Your task to perform on an android device: snooze an email in the gmail app Image 0: 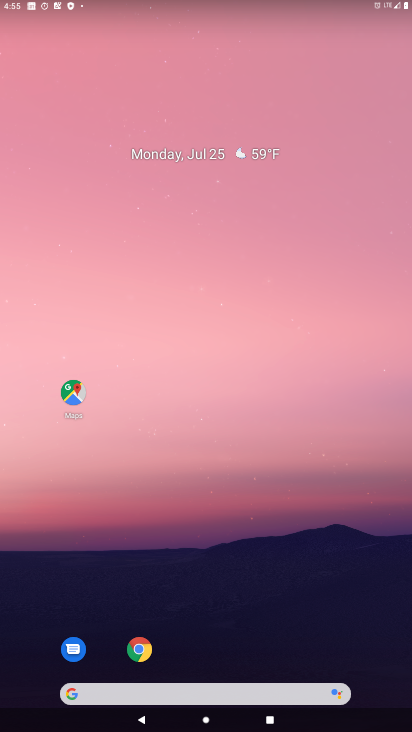
Step 0: drag from (292, 615) to (233, 72)
Your task to perform on an android device: snooze an email in the gmail app Image 1: 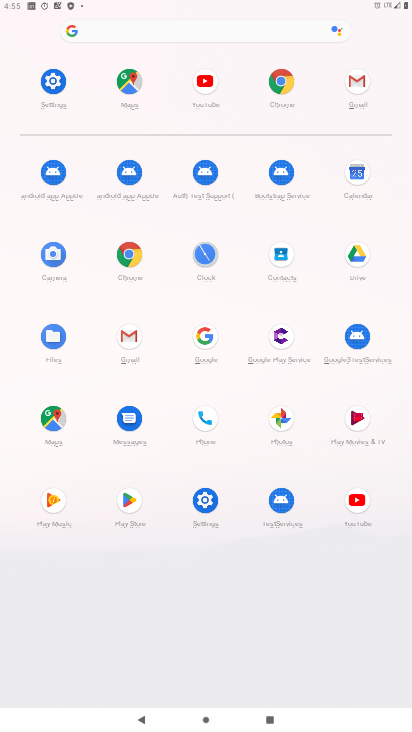
Step 1: click (366, 89)
Your task to perform on an android device: snooze an email in the gmail app Image 2: 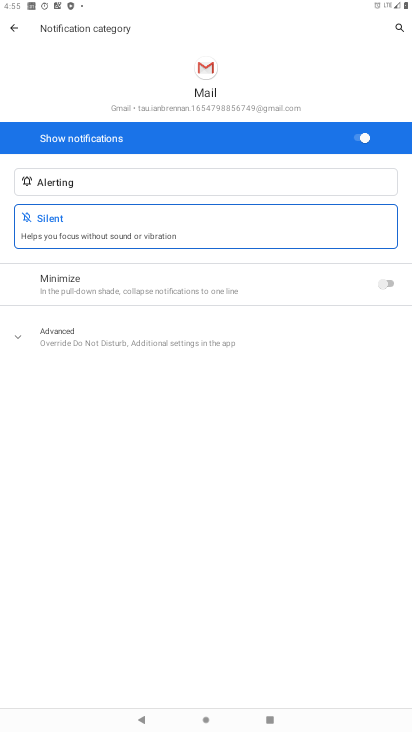
Step 2: click (17, 31)
Your task to perform on an android device: snooze an email in the gmail app Image 3: 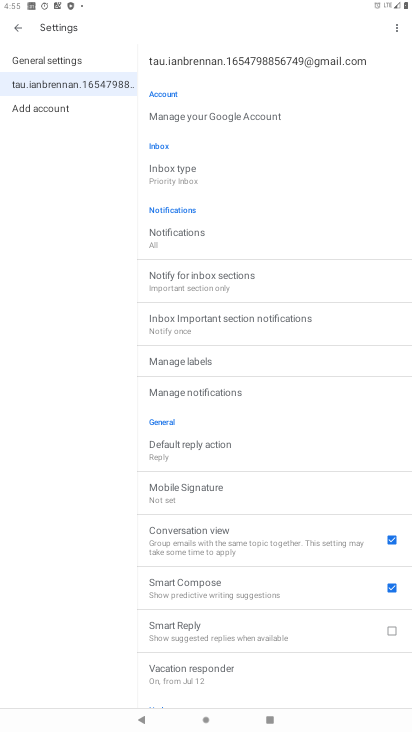
Step 3: click (17, 30)
Your task to perform on an android device: snooze an email in the gmail app Image 4: 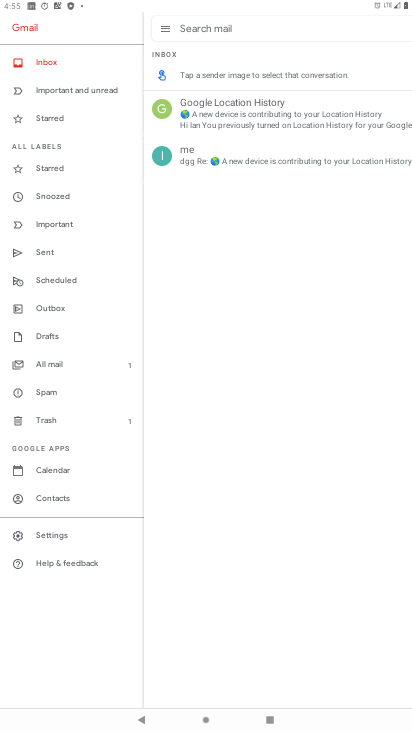
Step 4: click (279, 101)
Your task to perform on an android device: snooze an email in the gmail app Image 5: 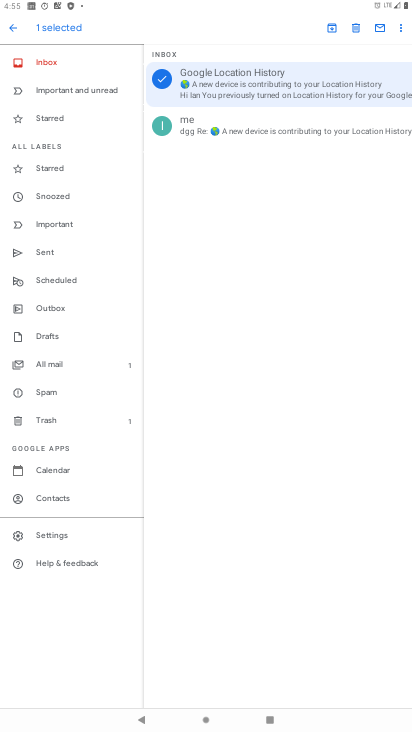
Step 5: click (398, 20)
Your task to perform on an android device: snooze an email in the gmail app Image 6: 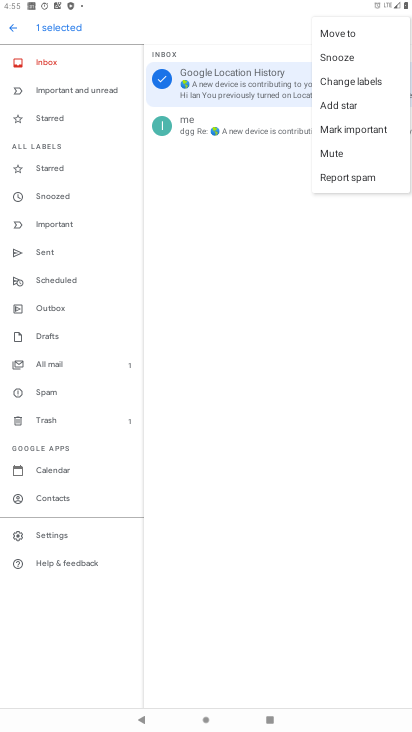
Step 6: click (354, 60)
Your task to perform on an android device: snooze an email in the gmail app Image 7: 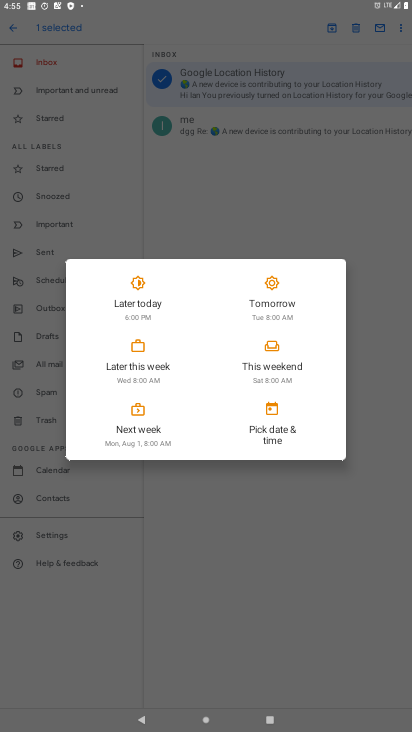
Step 7: click (285, 298)
Your task to perform on an android device: snooze an email in the gmail app Image 8: 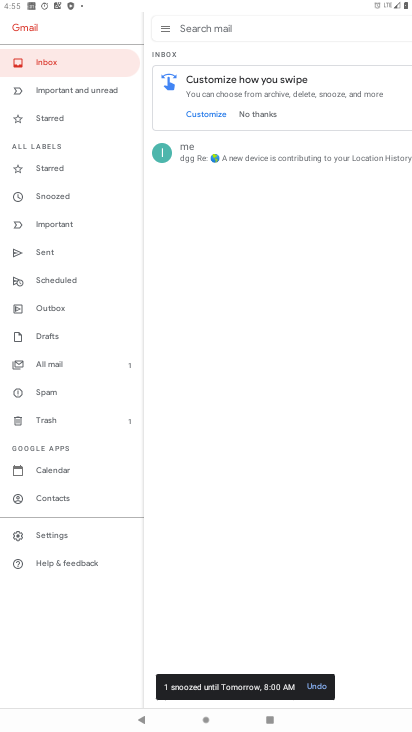
Step 8: task complete